Your task to perform on an android device: open app "Roku - Official Remote Control" (install if not already installed), go to login, and select forgot password Image 0: 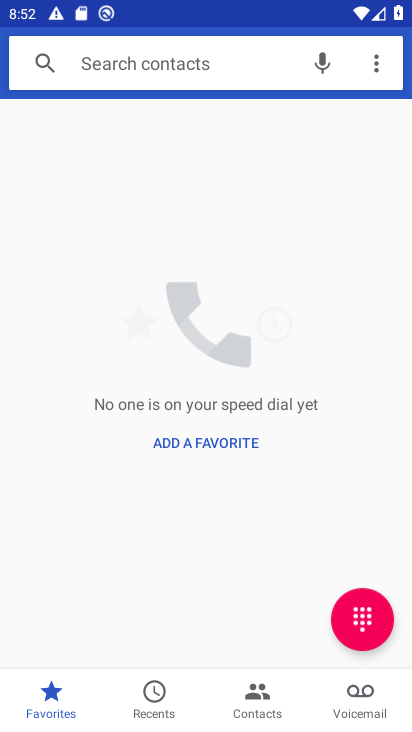
Step 0: press home button
Your task to perform on an android device: open app "Roku - Official Remote Control" (install if not already installed), go to login, and select forgot password Image 1: 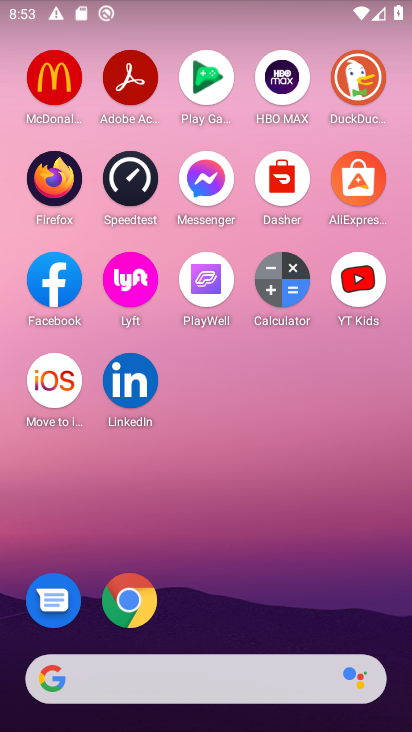
Step 1: drag from (239, 573) to (240, 98)
Your task to perform on an android device: open app "Roku - Official Remote Control" (install if not already installed), go to login, and select forgot password Image 2: 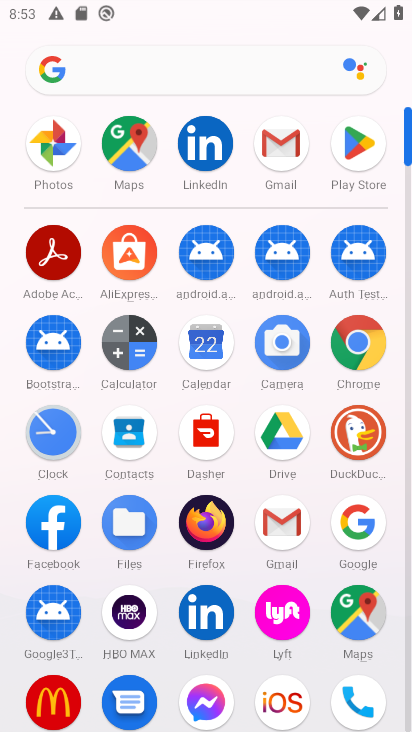
Step 2: click (350, 154)
Your task to perform on an android device: open app "Roku - Official Remote Control" (install if not already installed), go to login, and select forgot password Image 3: 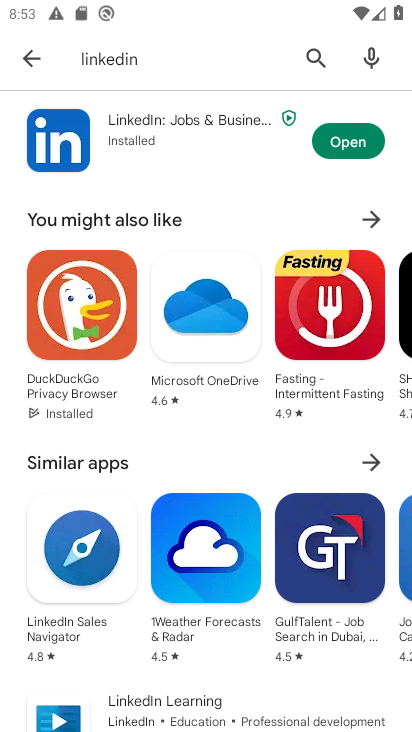
Step 3: click (313, 55)
Your task to perform on an android device: open app "Roku - Official Remote Control" (install if not already installed), go to login, and select forgot password Image 4: 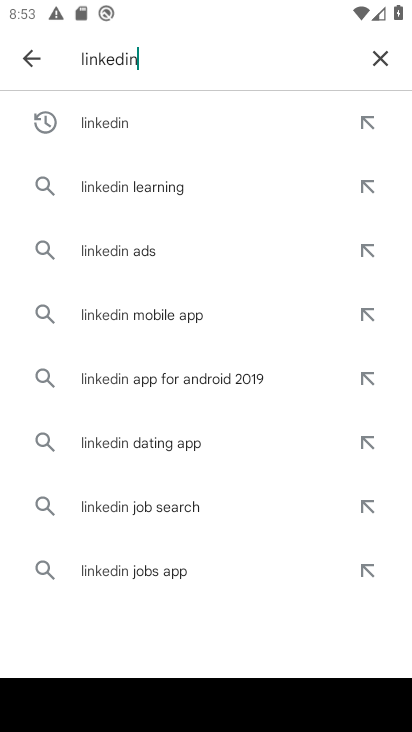
Step 4: click (379, 59)
Your task to perform on an android device: open app "Roku - Official Remote Control" (install if not already installed), go to login, and select forgot password Image 5: 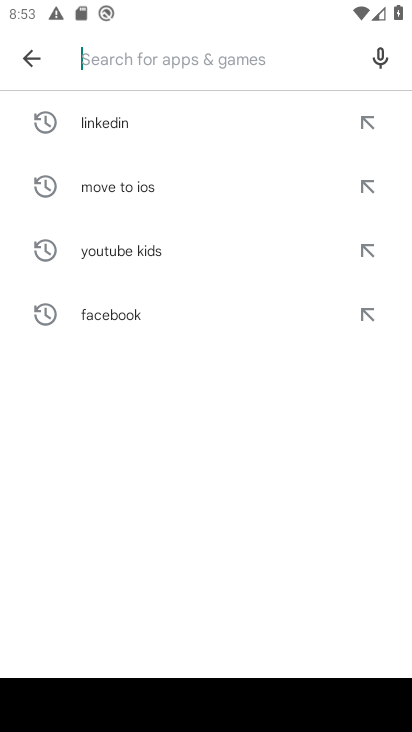
Step 5: type "Roku - Official Remote Contro"
Your task to perform on an android device: open app "Roku - Official Remote Control" (install if not already installed), go to login, and select forgot password Image 6: 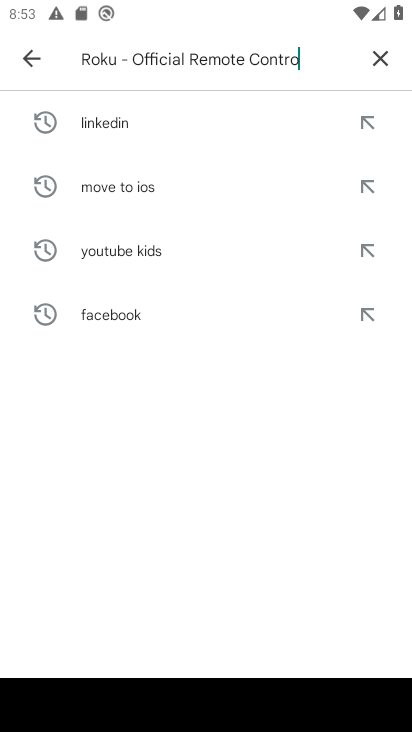
Step 6: type ""
Your task to perform on an android device: open app "Roku - Official Remote Control" (install if not already installed), go to login, and select forgot password Image 7: 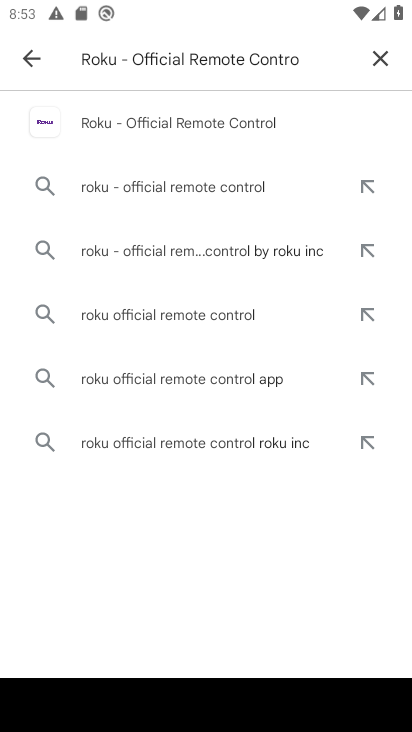
Step 7: click (146, 123)
Your task to perform on an android device: open app "Roku - Official Remote Control" (install if not already installed), go to login, and select forgot password Image 8: 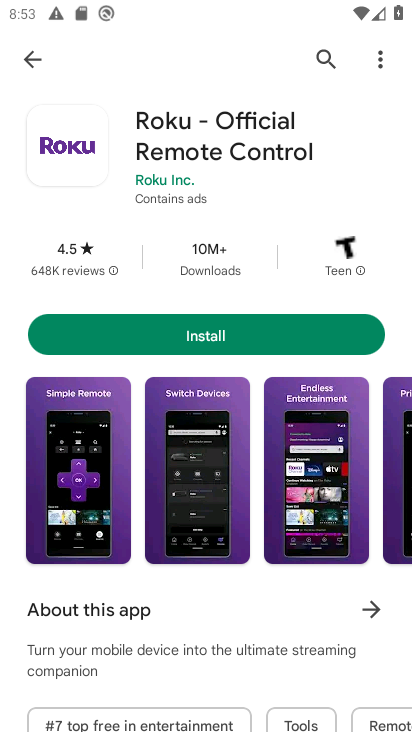
Step 8: click (206, 322)
Your task to perform on an android device: open app "Roku - Official Remote Control" (install if not already installed), go to login, and select forgot password Image 9: 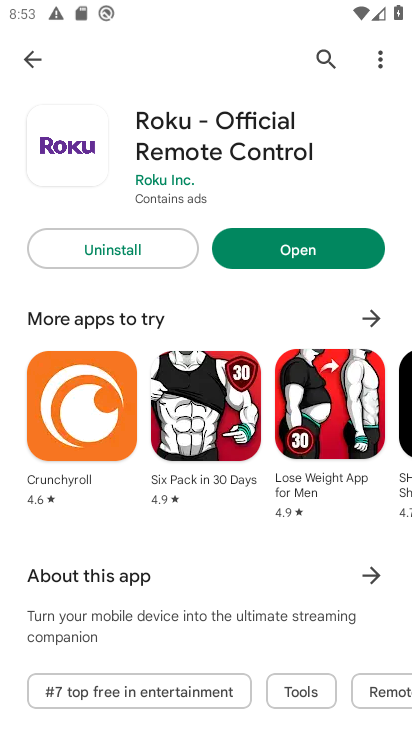
Step 9: click (338, 254)
Your task to perform on an android device: open app "Roku - Official Remote Control" (install if not already installed), go to login, and select forgot password Image 10: 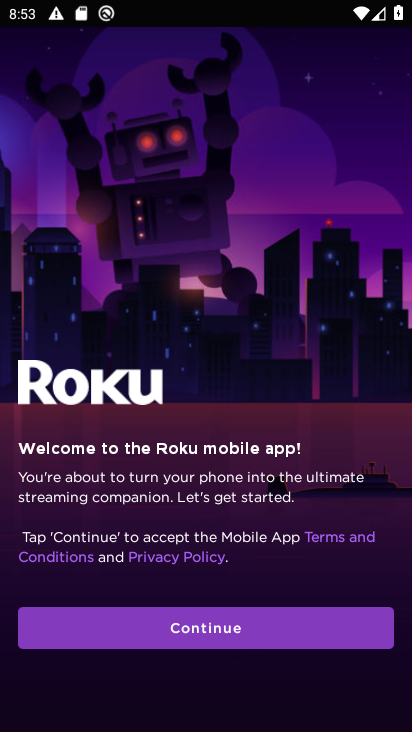
Step 10: task complete